Your task to perform on an android device: toggle improve location accuracy Image 0: 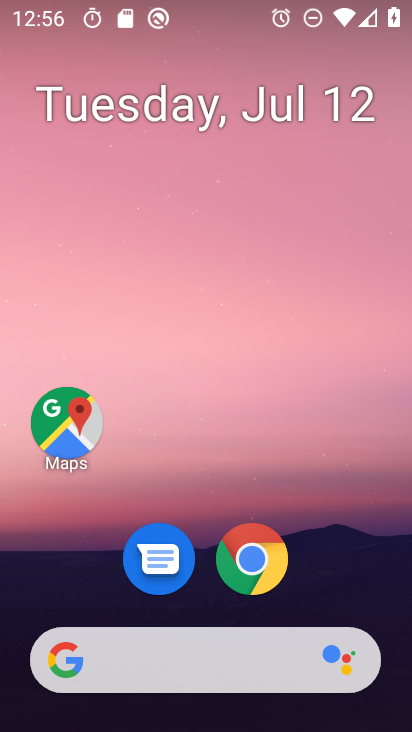
Step 0: drag from (195, 589) to (260, 28)
Your task to perform on an android device: toggle improve location accuracy Image 1: 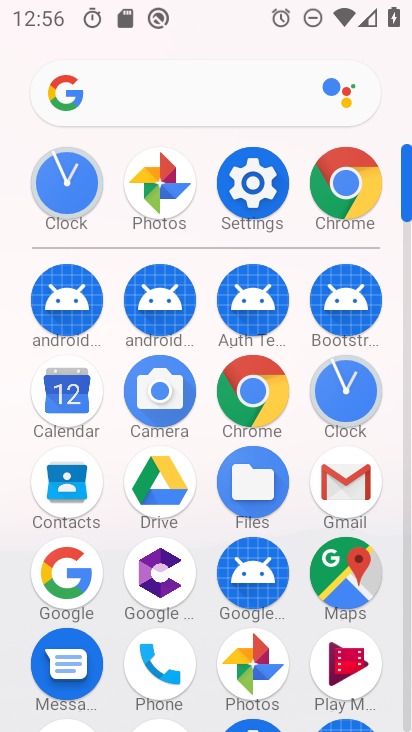
Step 1: click (242, 186)
Your task to perform on an android device: toggle improve location accuracy Image 2: 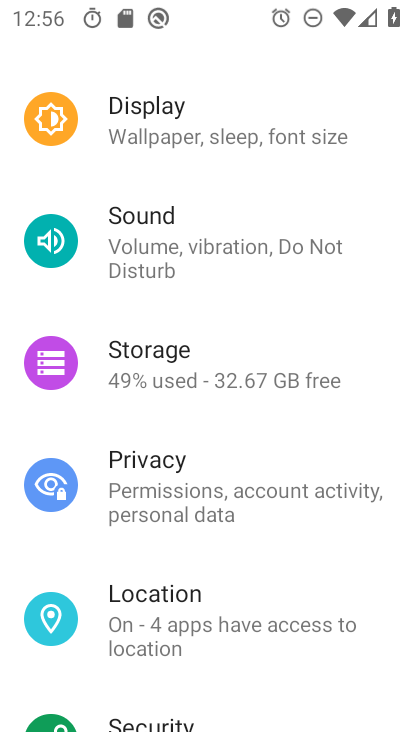
Step 2: click (150, 629)
Your task to perform on an android device: toggle improve location accuracy Image 3: 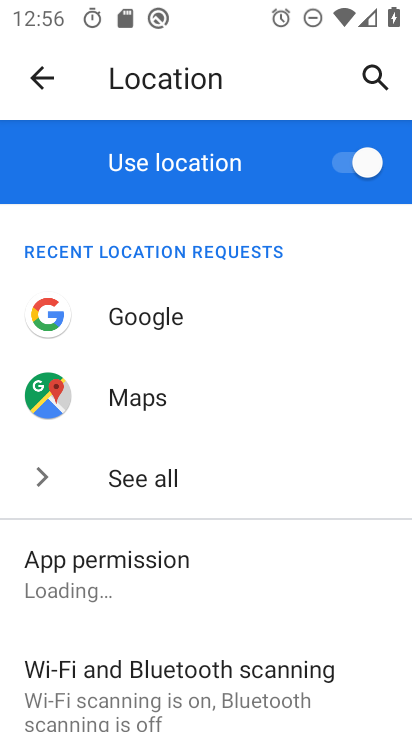
Step 3: drag from (112, 679) to (247, 97)
Your task to perform on an android device: toggle improve location accuracy Image 4: 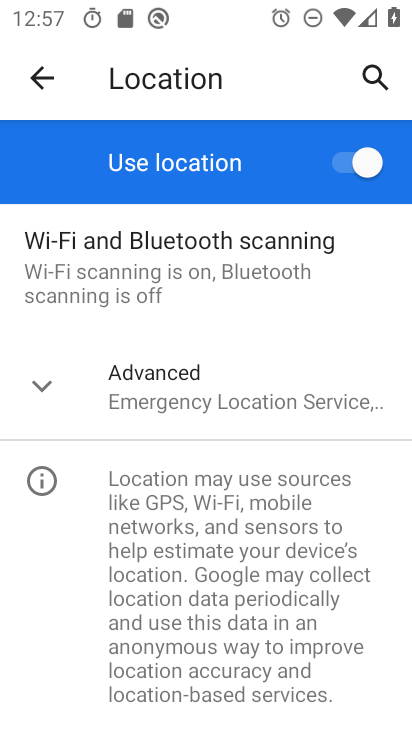
Step 4: click (199, 389)
Your task to perform on an android device: toggle improve location accuracy Image 5: 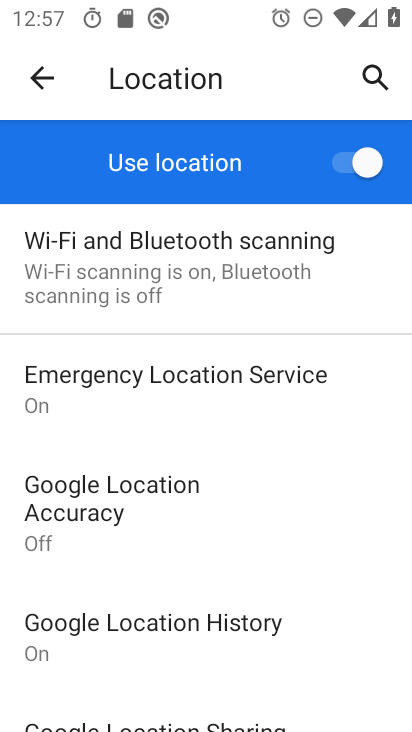
Step 5: click (149, 534)
Your task to perform on an android device: toggle improve location accuracy Image 6: 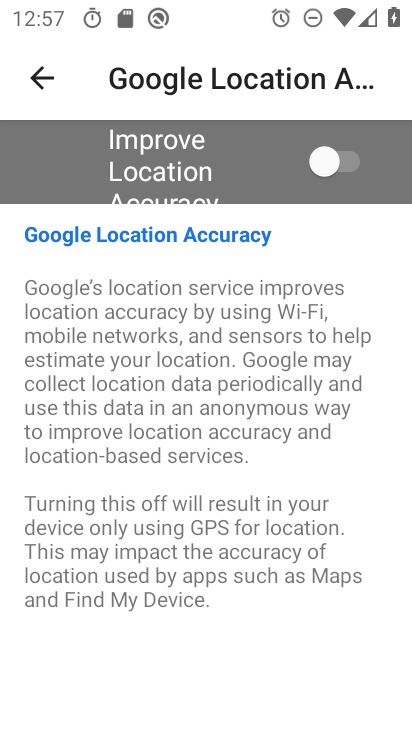
Step 6: click (325, 149)
Your task to perform on an android device: toggle improve location accuracy Image 7: 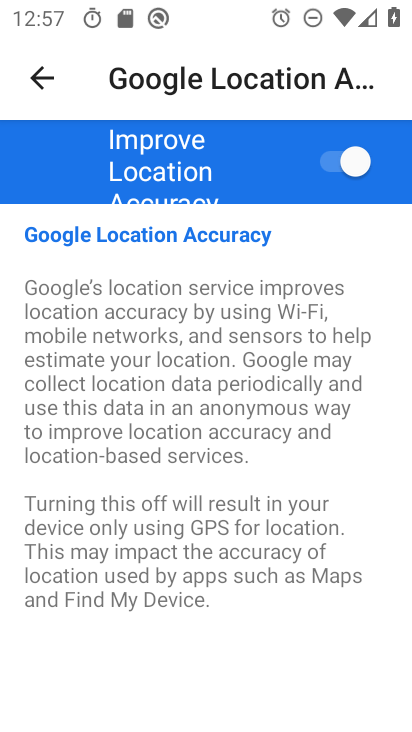
Step 7: task complete